Your task to perform on an android device: Open Reddit.com Image 0: 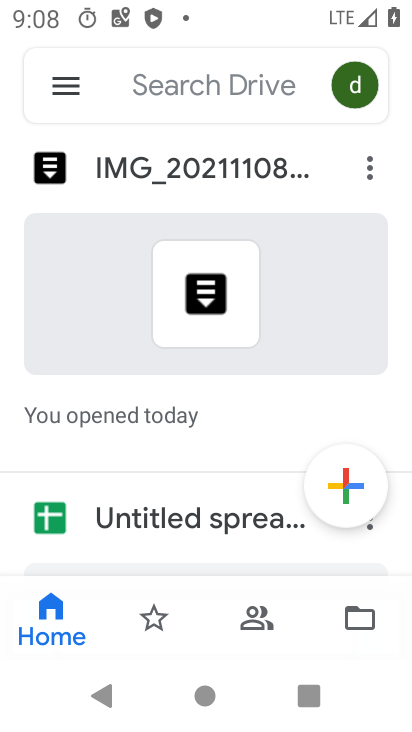
Step 0: press home button
Your task to perform on an android device: Open Reddit.com Image 1: 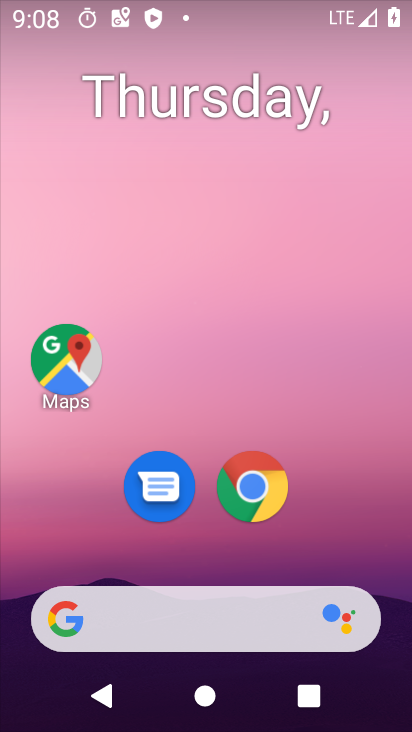
Step 1: drag from (220, 606) to (194, 26)
Your task to perform on an android device: Open Reddit.com Image 2: 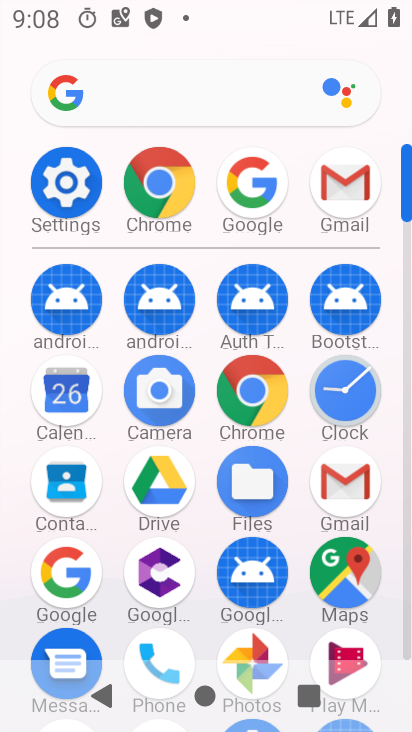
Step 2: click (168, 212)
Your task to perform on an android device: Open Reddit.com Image 3: 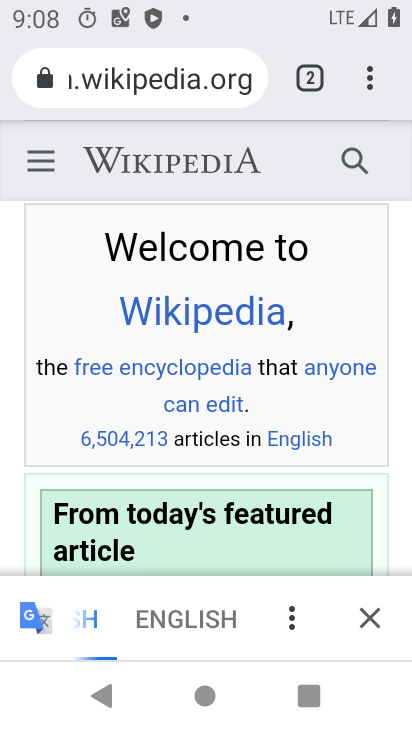
Step 3: click (212, 96)
Your task to perform on an android device: Open Reddit.com Image 4: 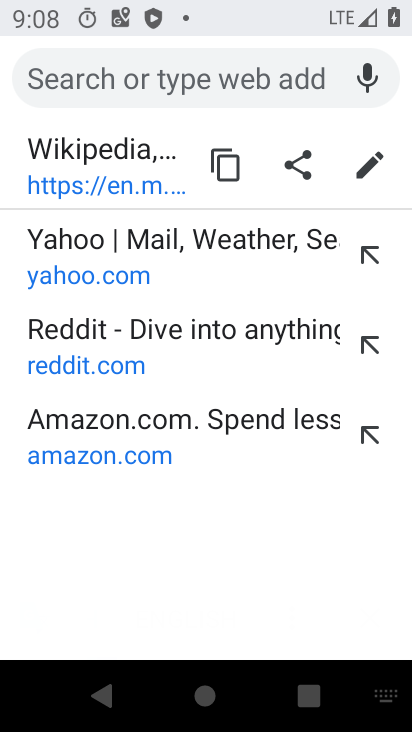
Step 4: click (189, 335)
Your task to perform on an android device: Open Reddit.com Image 5: 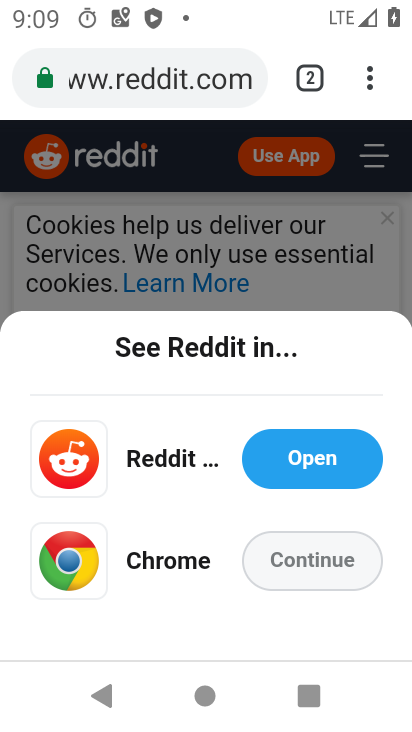
Step 5: task complete